Your task to perform on an android device: Do I have any events today? Image 0: 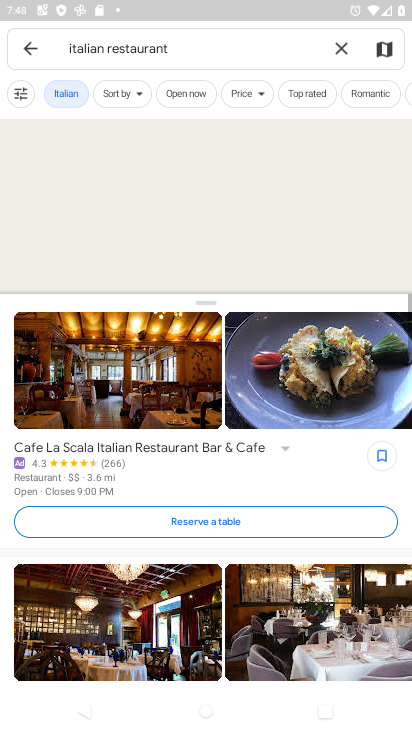
Step 0: press home button
Your task to perform on an android device: Do I have any events today? Image 1: 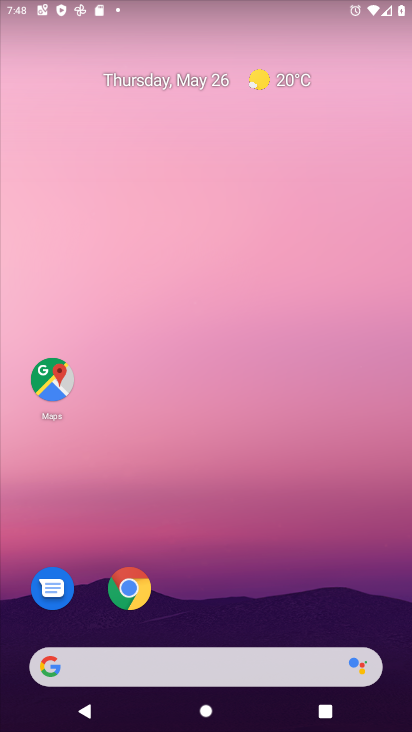
Step 1: drag from (380, 595) to (267, 57)
Your task to perform on an android device: Do I have any events today? Image 2: 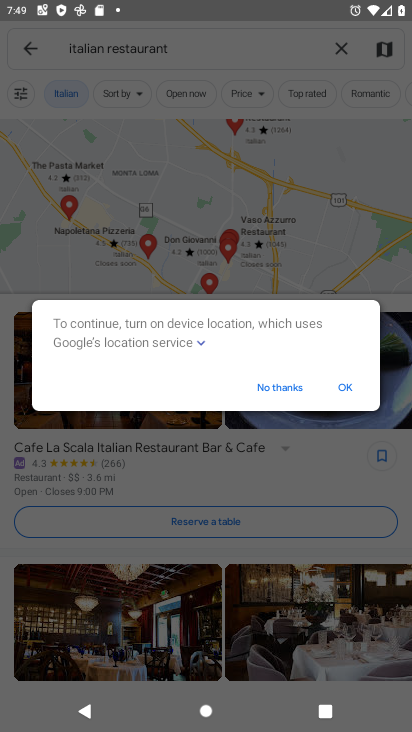
Step 2: press home button
Your task to perform on an android device: Do I have any events today? Image 3: 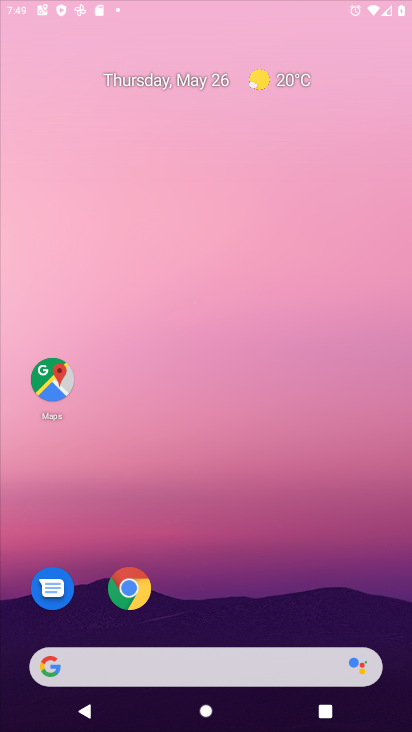
Step 3: drag from (405, 616) to (319, 60)
Your task to perform on an android device: Do I have any events today? Image 4: 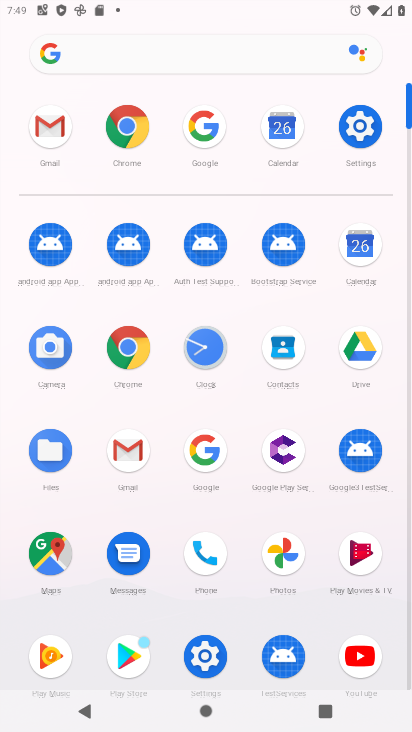
Step 4: click (385, 255)
Your task to perform on an android device: Do I have any events today? Image 5: 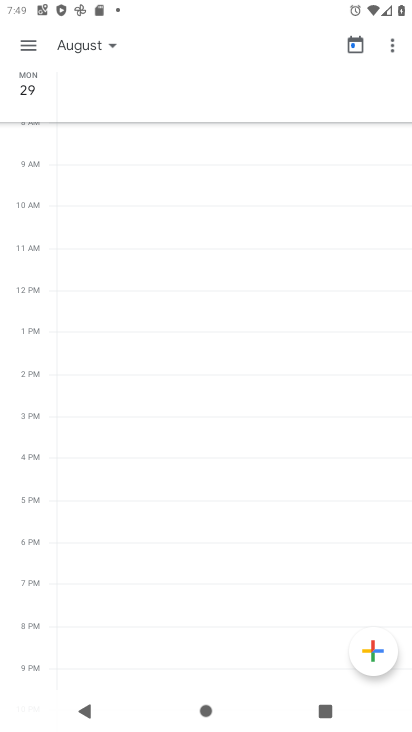
Step 5: task complete